Your task to perform on an android device: Open Chrome and go to settings Image 0: 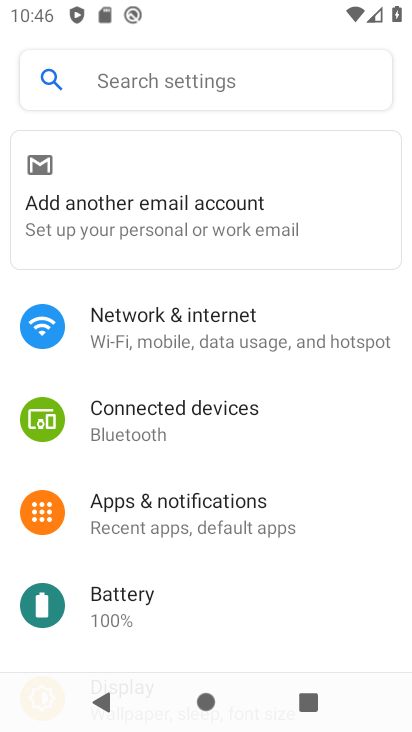
Step 0: press back button
Your task to perform on an android device: Open Chrome and go to settings Image 1: 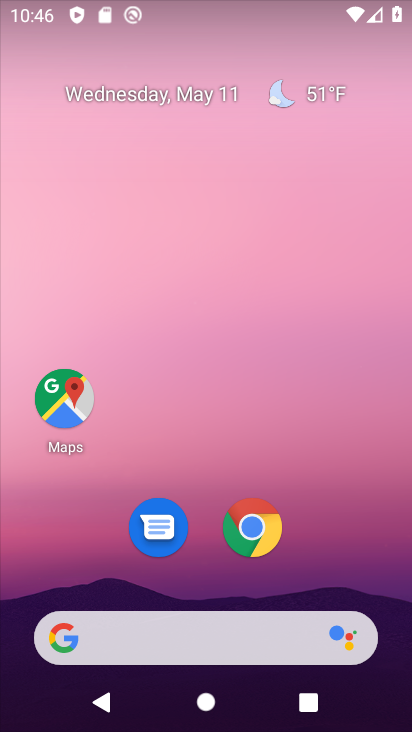
Step 1: click (250, 525)
Your task to perform on an android device: Open Chrome and go to settings Image 2: 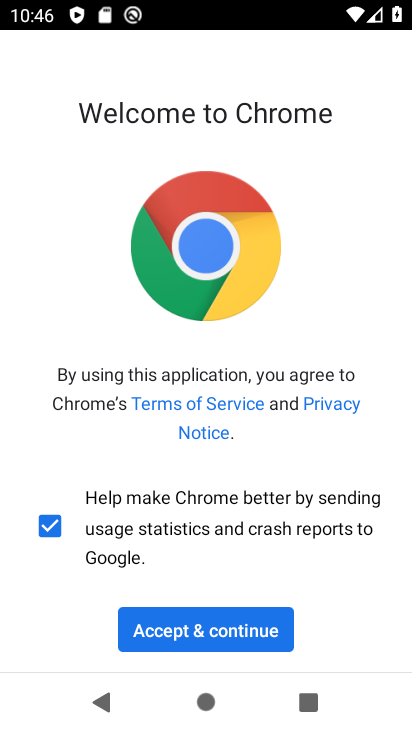
Step 2: click (201, 631)
Your task to perform on an android device: Open Chrome and go to settings Image 3: 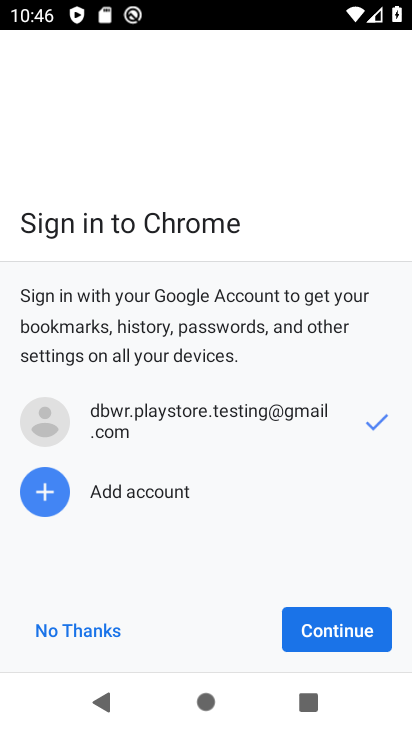
Step 3: click (322, 628)
Your task to perform on an android device: Open Chrome and go to settings Image 4: 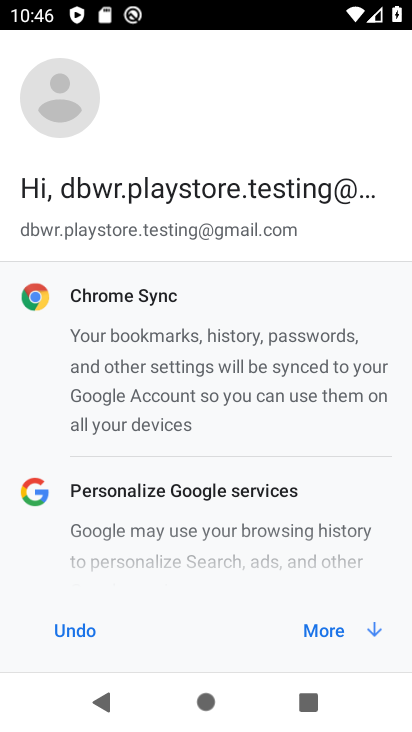
Step 4: click (323, 627)
Your task to perform on an android device: Open Chrome and go to settings Image 5: 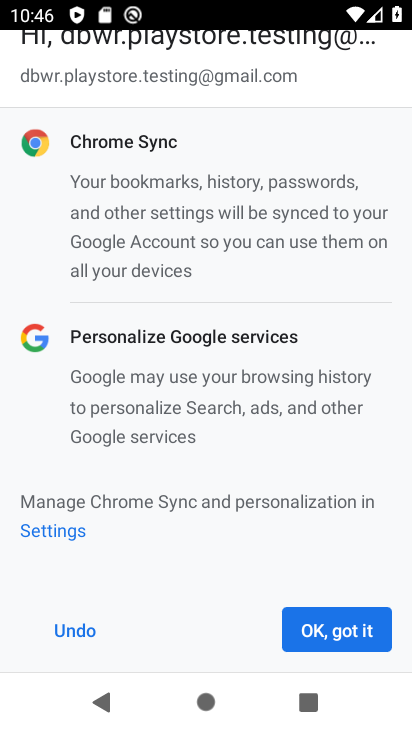
Step 5: click (323, 627)
Your task to perform on an android device: Open Chrome and go to settings Image 6: 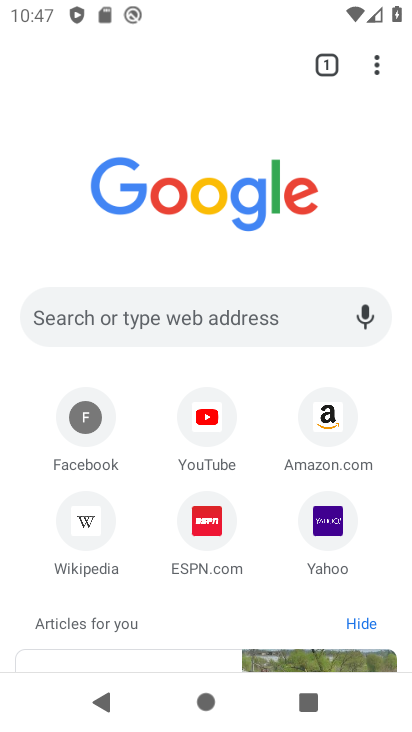
Step 6: click (376, 64)
Your task to perform on an android device: Open Chrome and go to settings Image 7: 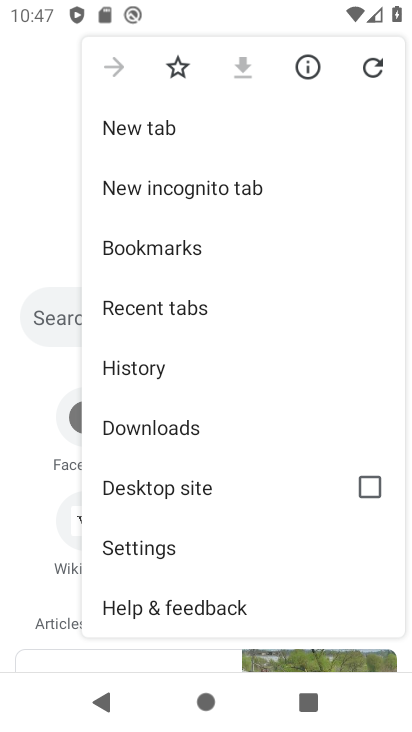
Step 7: click (144, 550)
Your task to perform on an android device: Open Chrome and go to settings Image 8: 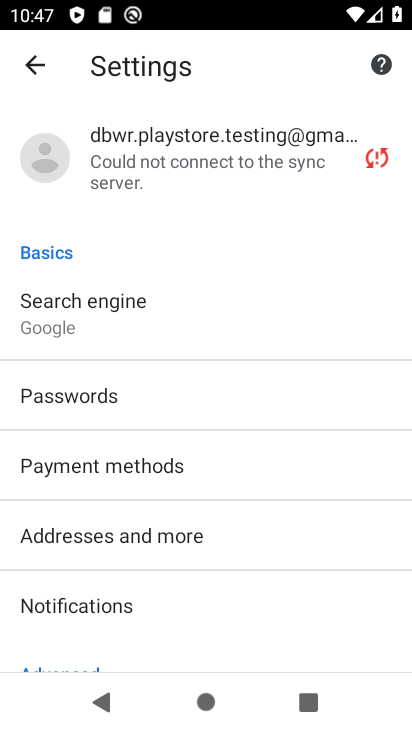
Step 8: task complete